Your task to perform on an android device: Open Yahoo.com Image 0: 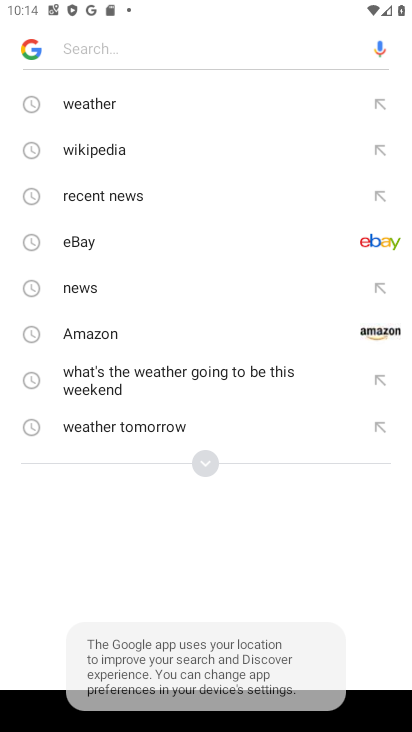
Step 0: press home button
Your task to perform on an android device: Open Yahoo.com Image 1: 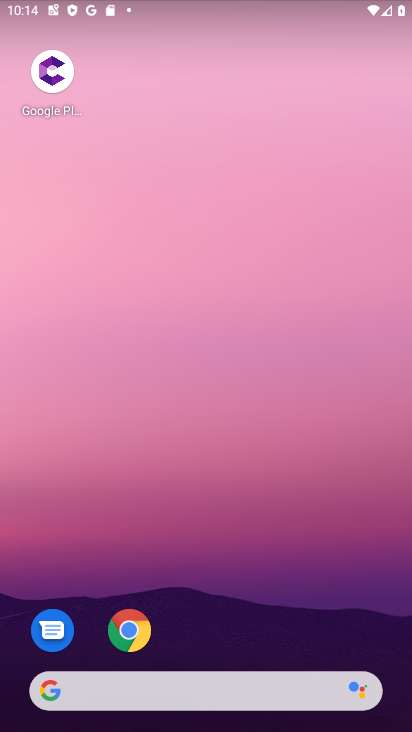
Step 1: click (128, 629)
Your task to perform on an android device: Open Yahoo.com Image 2: 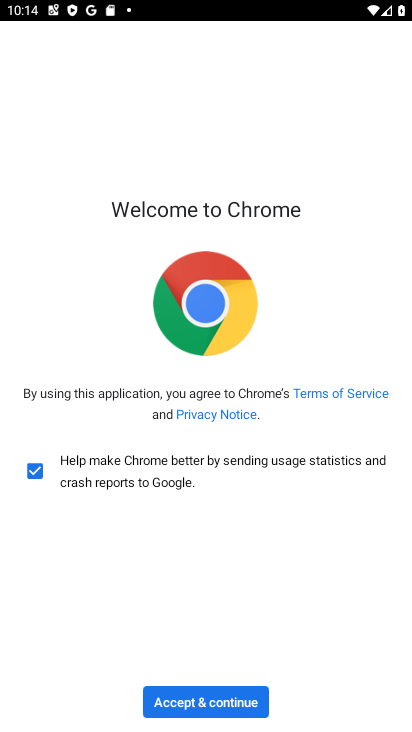
Step 2: click (128, 629)
Your task to perform on an android device: Open Yahoo.com Image 3: 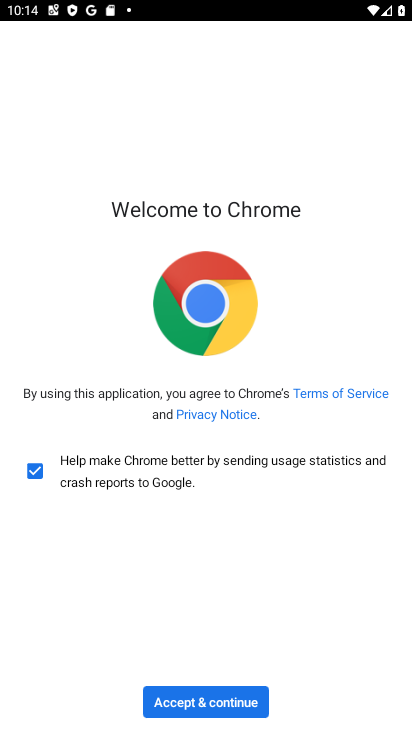
Step 3: click (184, 700)
Your task to perform on an android device: Open Yahoo.com Image 4: 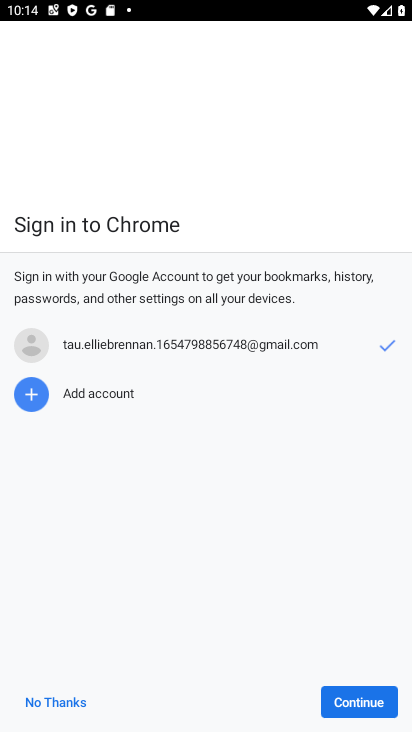
Step 4: click (350, 700)
Your task to perform on an android device: Open Yahoo.com Image 5: 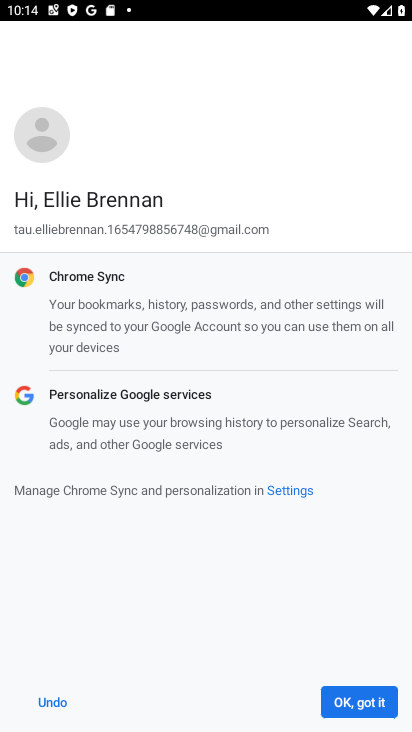
Step 5: click (353, 700)
Your task to perform on an android device: Open Yahoo.com Image 6: 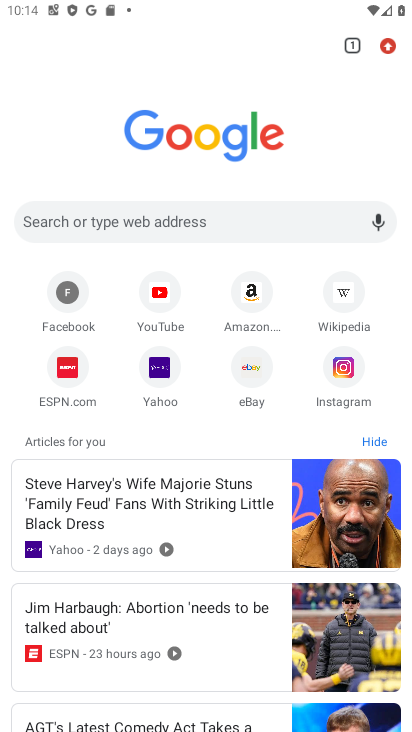
Step 6: click (157, 367)
Your task to perform on an android device: Open Yahoo.com Image 7: 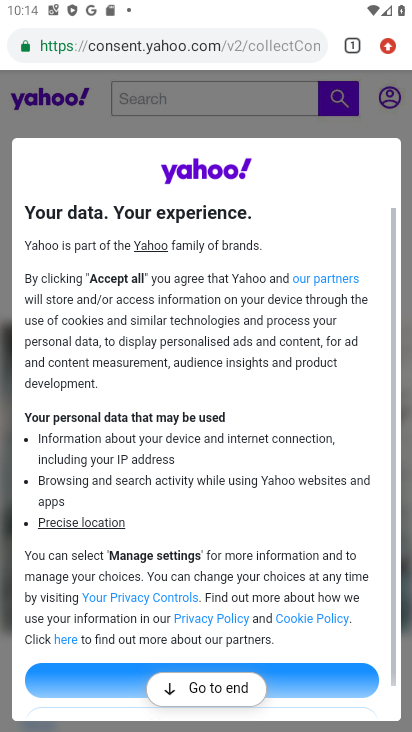
Step 7: click (185, 682)
Your task to perform on an android device: Open Yahoo.com Image 8: 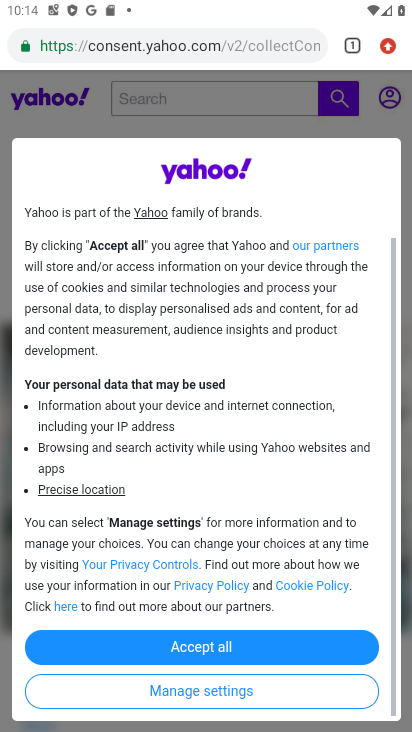
Step 8: click (203, 647)
Your task to perform on an android device: Open Yahoo.com Image 9: 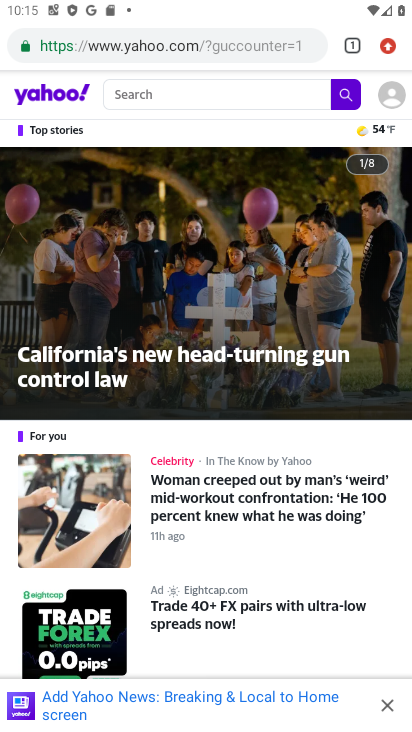
Step 9: task complete